Your task to perform on an android device: add a contact in the contacts app Image 0: 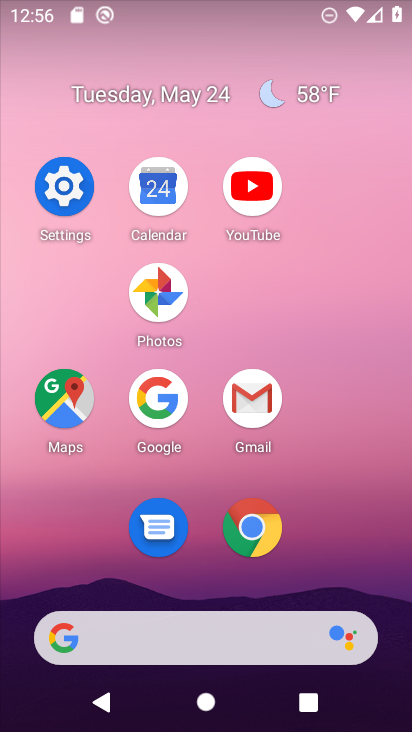
Step 0: drag from (347, 475) to (363, 111)
Your task to perform on an android device: add a contact in the contacts app Image 1: 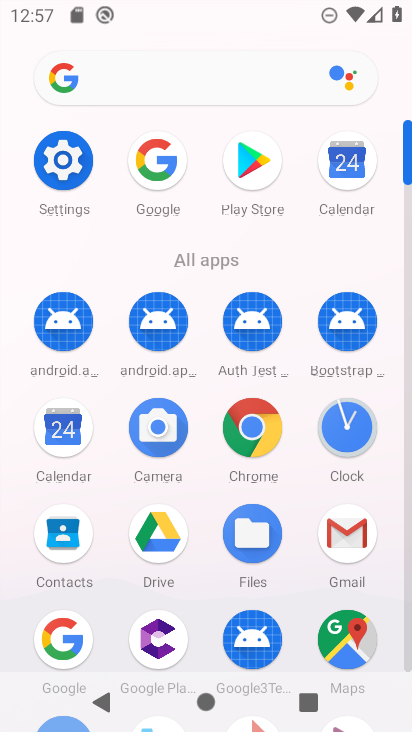
Step 1: click (46, 513)
Your task to perform on an android device: add a contact in the contacts app Image 2: 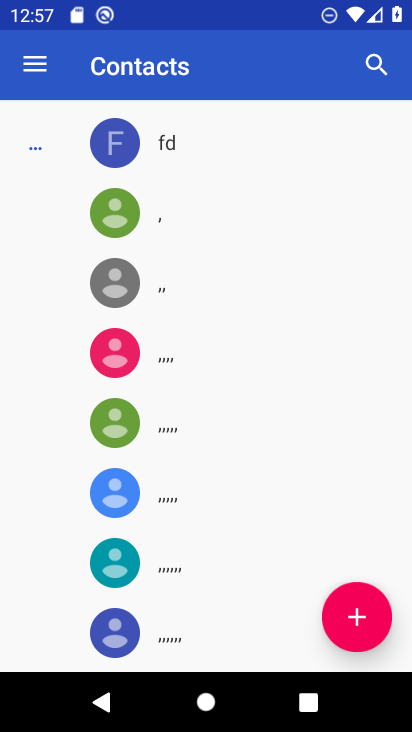
Step 2: click (381, 622)
Your task to perform on an android device: add a contact in the contacts app Image 3: 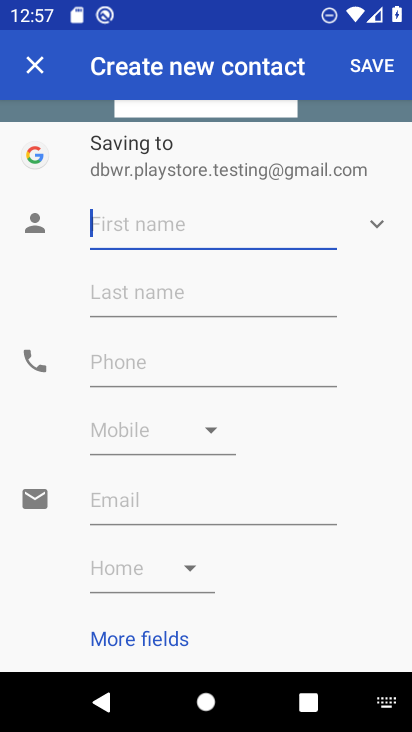
Step 3: type "jjj"
Your task to perform on an android device: add a contact in the contacts app Image 4: 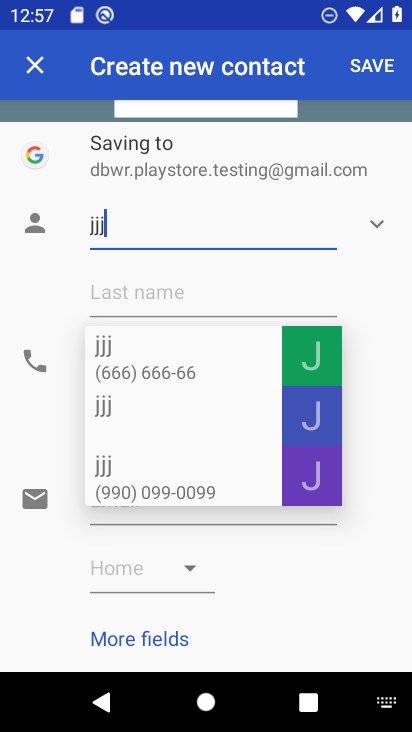
Step 4: click (169, 291)
Your task to perform on an android device: add a contact in the contacts app Image 5: 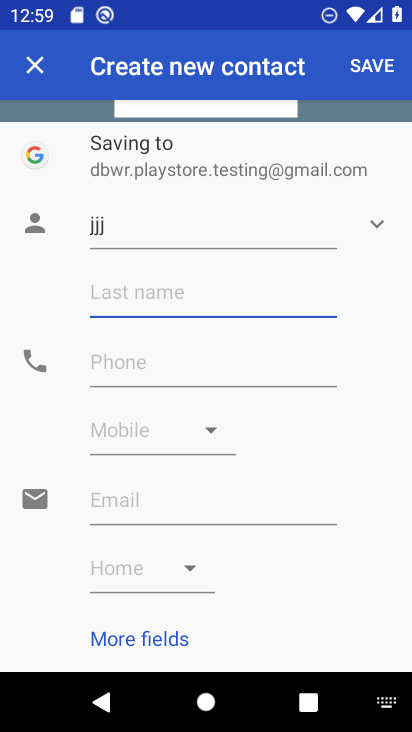
Step 5: type "jjj"
Your task to perform on an android device: add a contact in the contacts app Image 6: 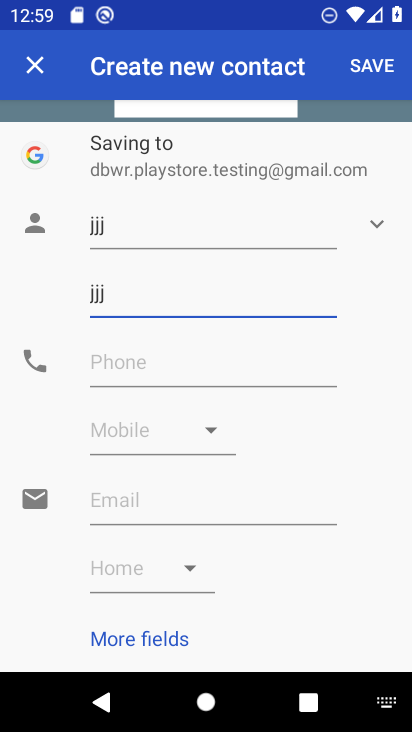
Step 6: click (191, 361)
Your task to perform on an android device: add a contact in the contacts app Image 7: 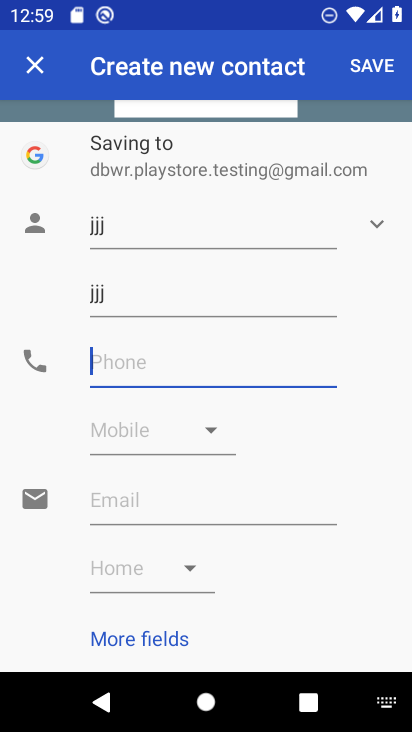
Step 7: type "7788778878"
Your task to perform on an android device: add a contact in the contacts app Image 8: 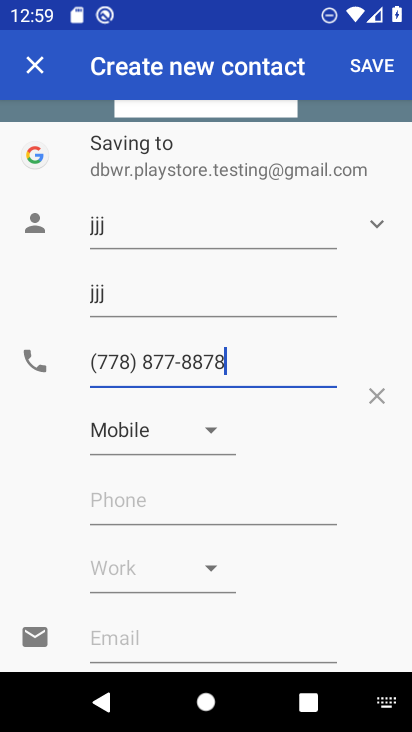
Step 8: click (367, 64)
Your task to perform on an android device: add a contact in the contacts app Image 9: 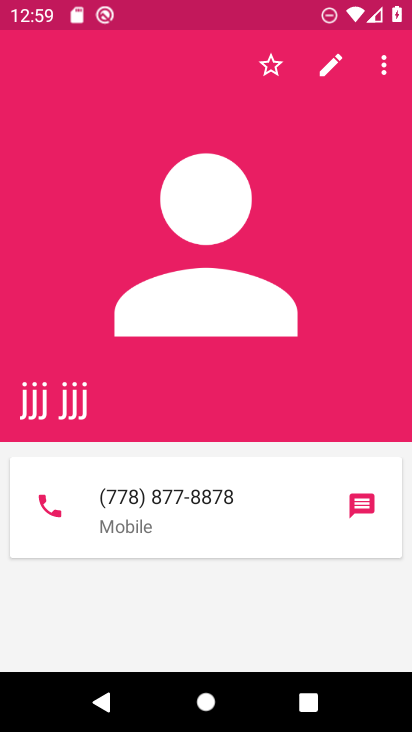
Step 9: task complete